Your task to perform on an android device: What's the news in Pakistan? Image 0: 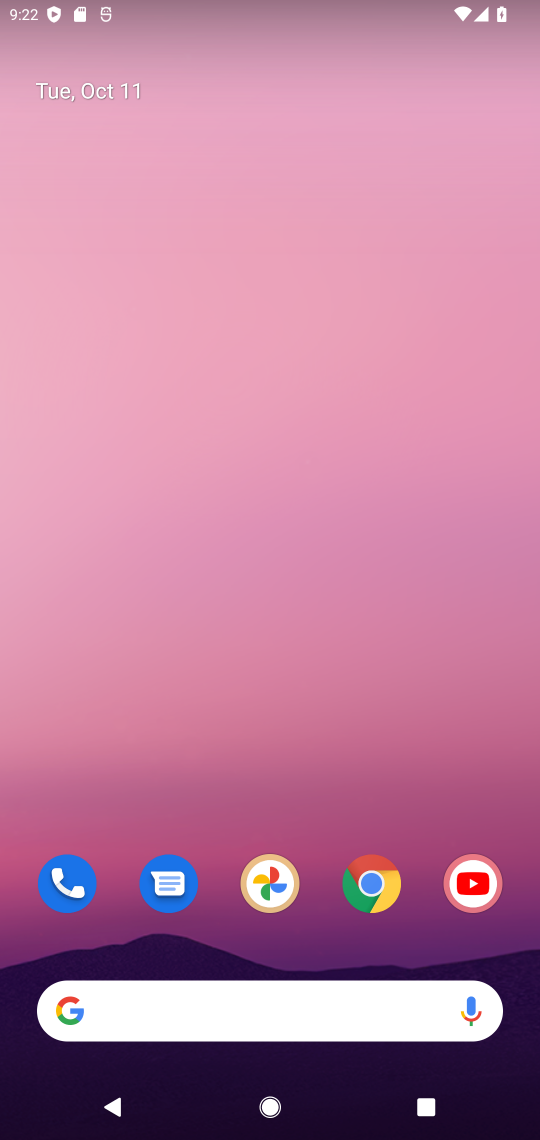
Step 0: click (367, 894)
Your task to perform on an android device: What's the news in Pakistan? Image 1: 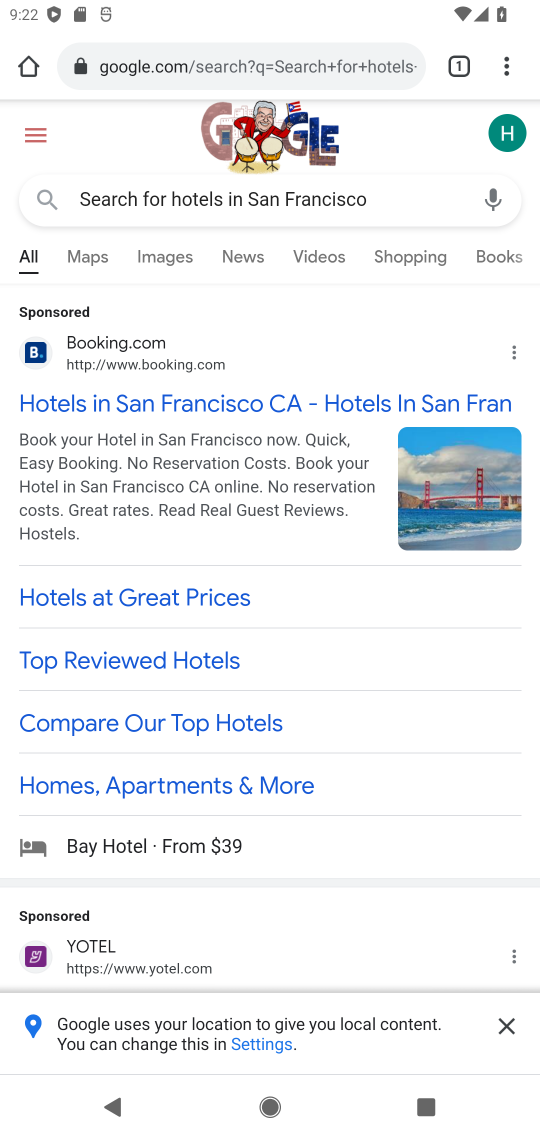
Step 1: click (219, 64)
Your task to perform on an android device: What's the news in Pakistan? Image 2: 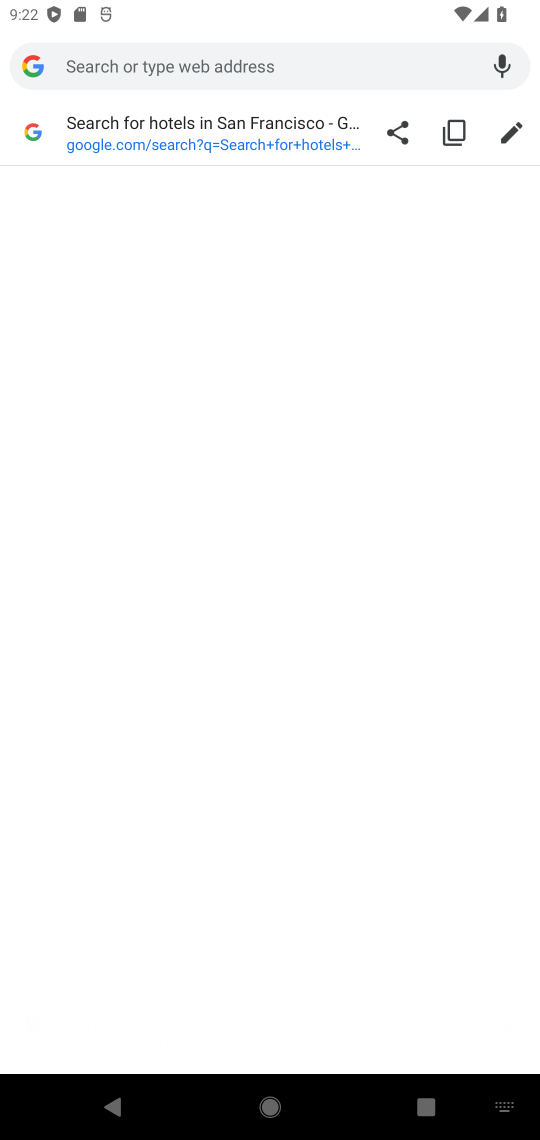
Step 2: click (315, 66)
Your task to perform on an android device: What's the news in Pakistan? Image 3: 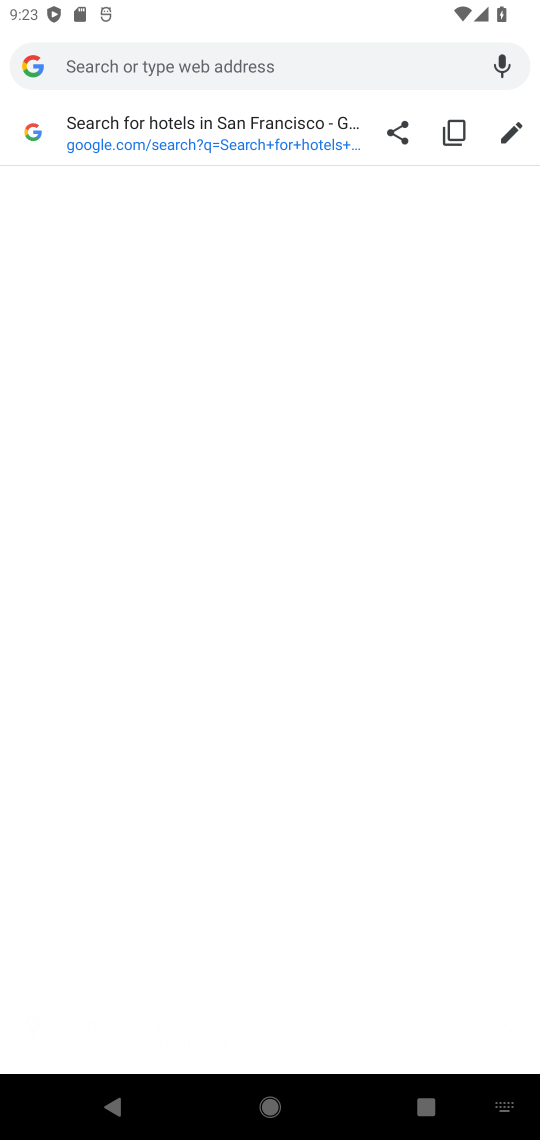
Step 3: type "What's the news in Pakistan?"
Your task to perform on an android device: What's the news in Pakistan? Image 4: 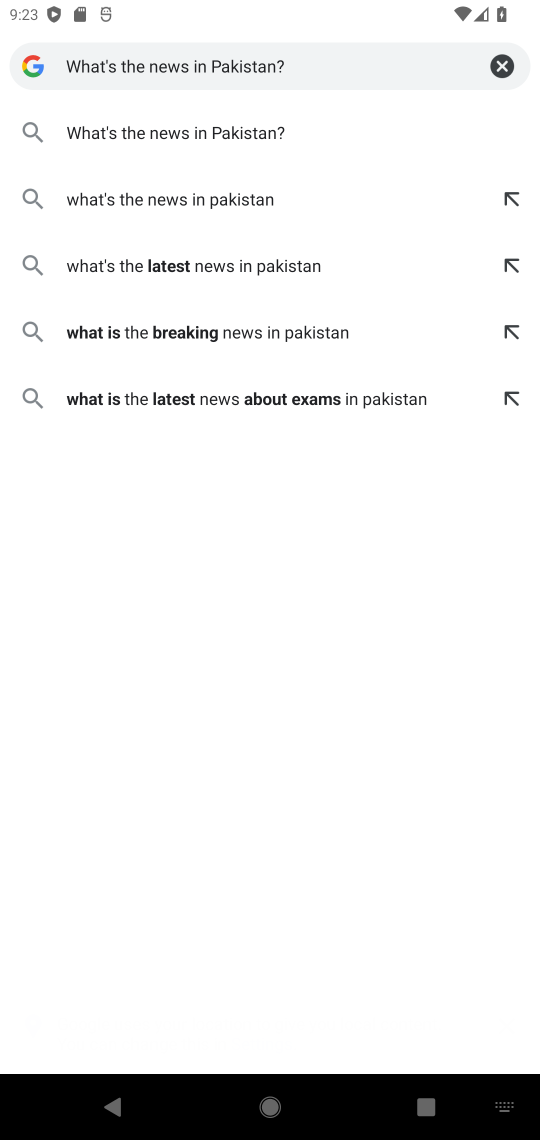
Step 4: click (315, 132)
Your task to perform on an android device: What's the news in Pakistan? Image 5: 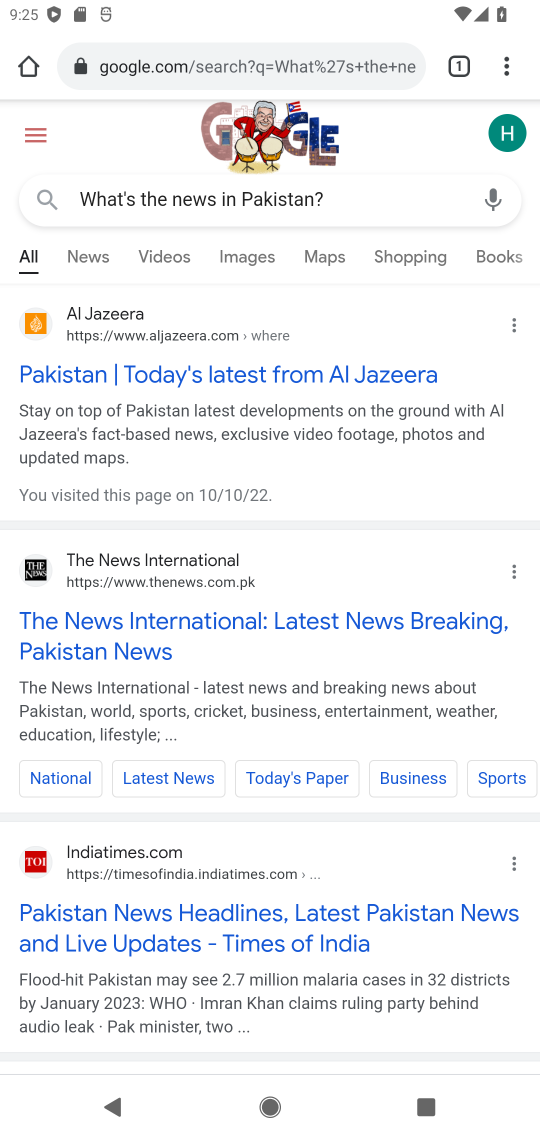
Step 5: task complete